Your task to perform on an android device: turn pop-ups off in chrome Image 0: 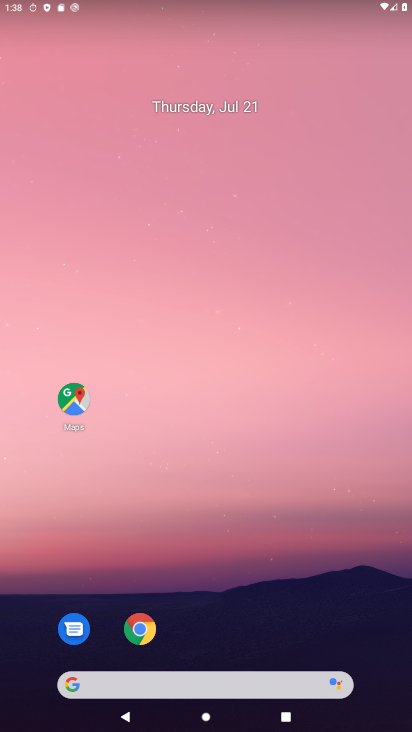
Step 0: click (146, 627)
Your task to perform on an android device: turn pop-ups off in chrome Image 1: 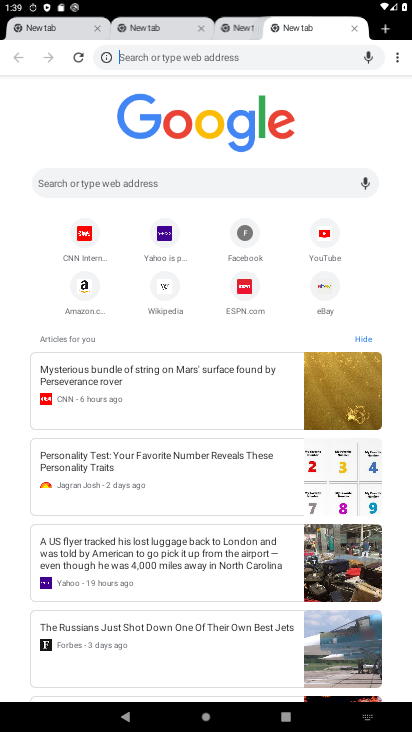
Step 1: click (392, 58)
Your task to perform on an android device: turn pop-ups off in chrome Image 2: 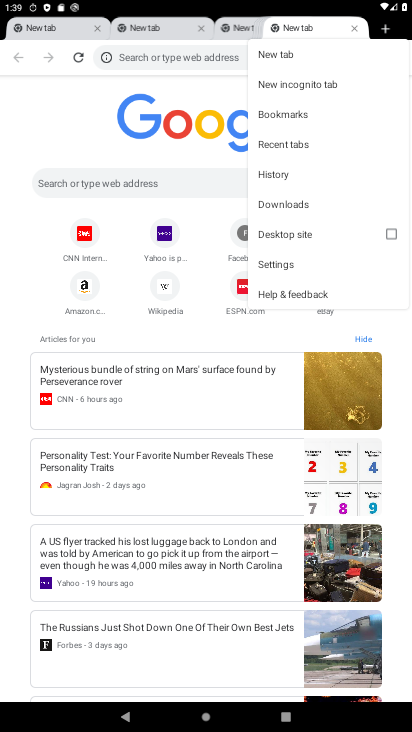
Step 2: click (282, 258)
Your task to perform on an android device: turn pop-ups off in chrome Image 3: 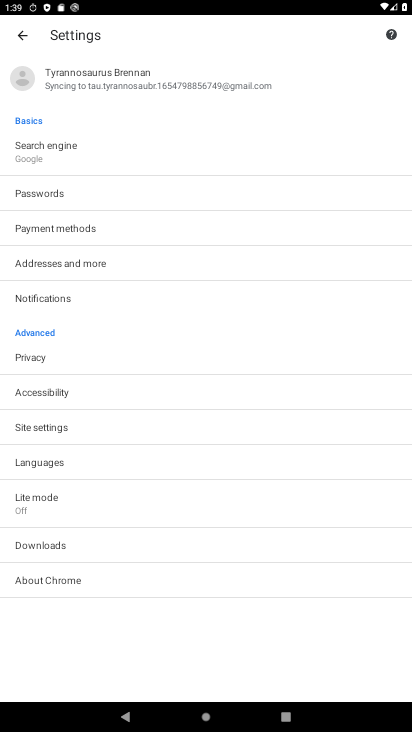
Step 3: click (40, 428)
Your task to perform on an android device: turn pop-ups off in chrome Image 4: 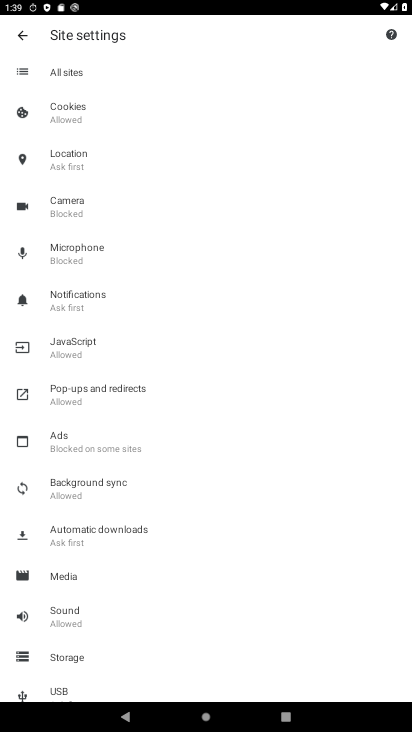
Step 4: click (98, 403)
Your task to perform on an android device: turn pop-ups off in chrome Image 5: 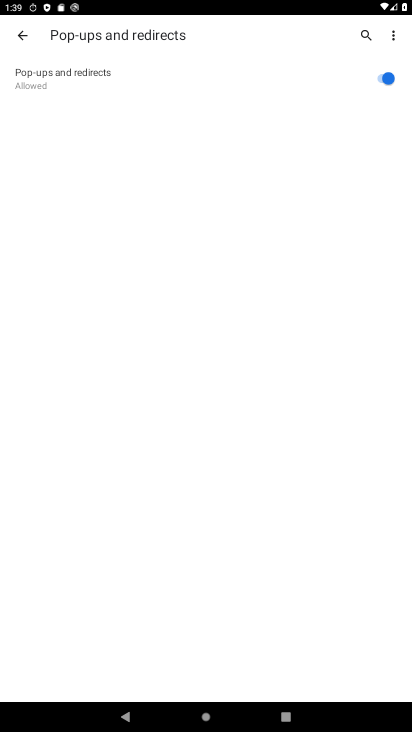
Step 5: task complete